Your task to perform on an android device: What's on my calendar tomorrow? Image 0: 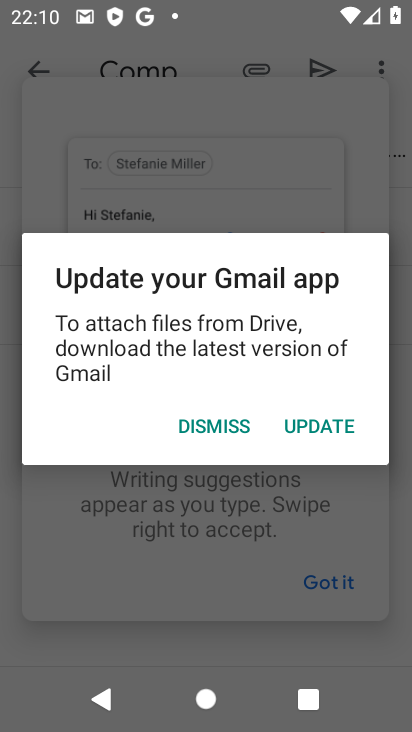
Step 0: press home button
Your task to perform on an android device: What's on my calendar tomorrow? Image 1: 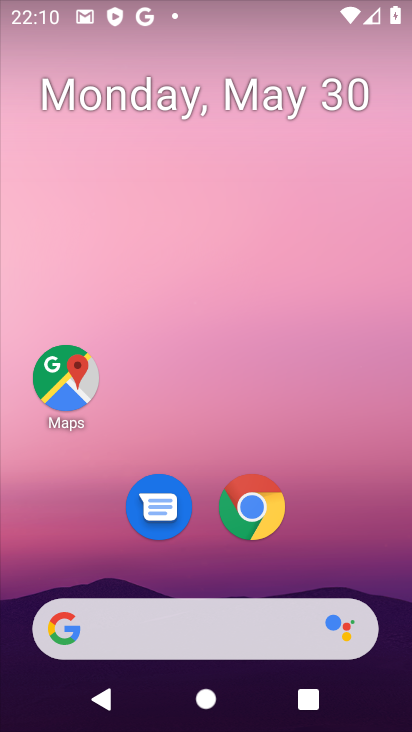
Step 1: drag from (374, 545) to (372, 160)
Your task to perform on an android device: What's on my calendar tomorrow? Image 2: 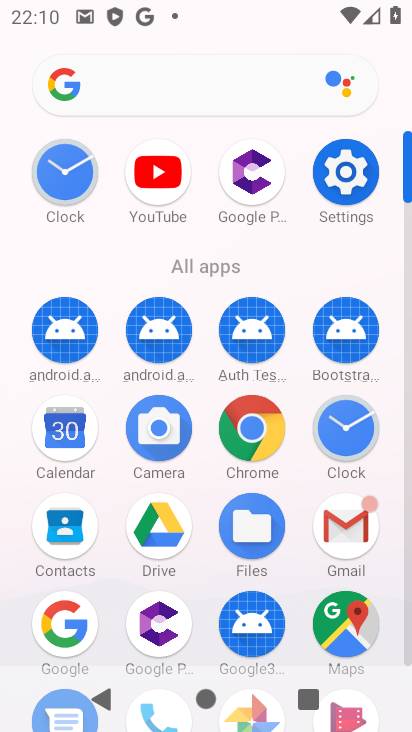
Step 2: click (83, 433)
Your task to perform on an android device: What's on my calendar tomorrow? Image 3: 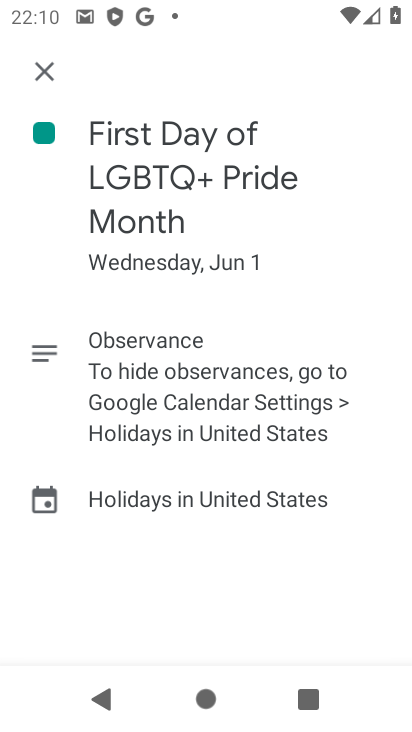
Step 3: click (41, 76)
Your task to perform on an android device: What's on my calendar tomorrow? Image 4: 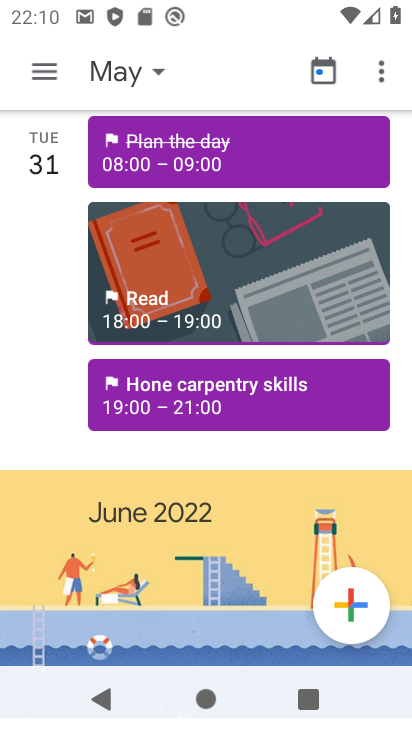
Step 4: drag from (232, 458) to (241, 131)
Your task to perform on an android device: What's on my calendar tomorrow? Image 5: 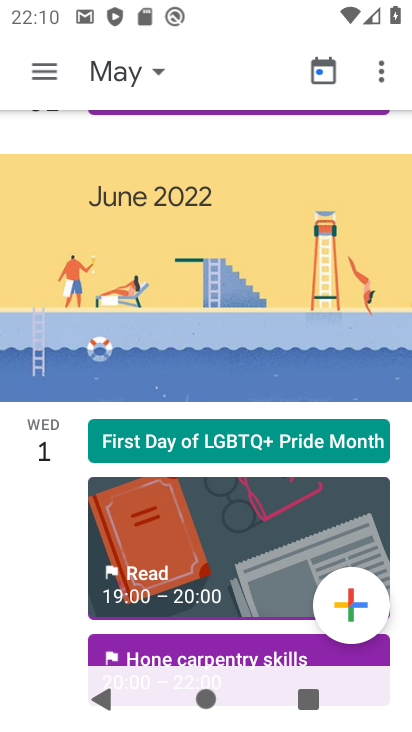
Step 5: drag from (231, 550) to (234, 310)
Your task to perform on an android device: What's on my calendar tomorrow? Image 6: 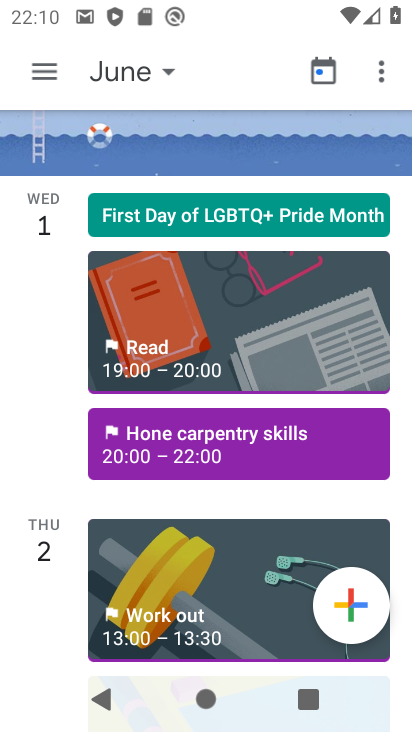
Step 6: click (222, 314)
Your task to perform on an android device: What's on my calendar tomorrow? Image 7: 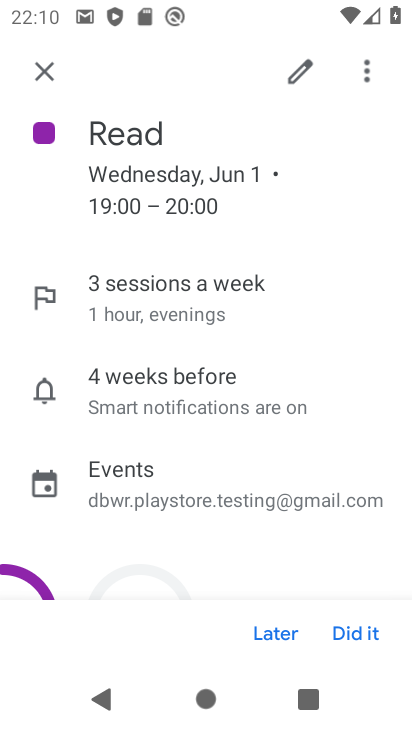
Step 7: task complete